Your task to perform on an android device: Open the map Image 0: 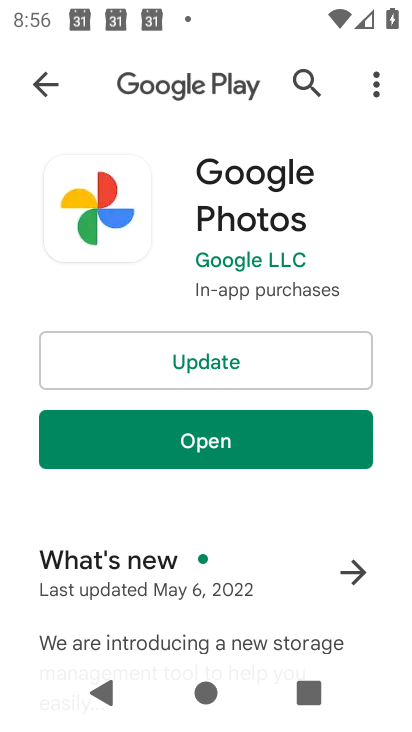
Step 0: press home button
Your task to perform on an android device: Open the map Image 1: 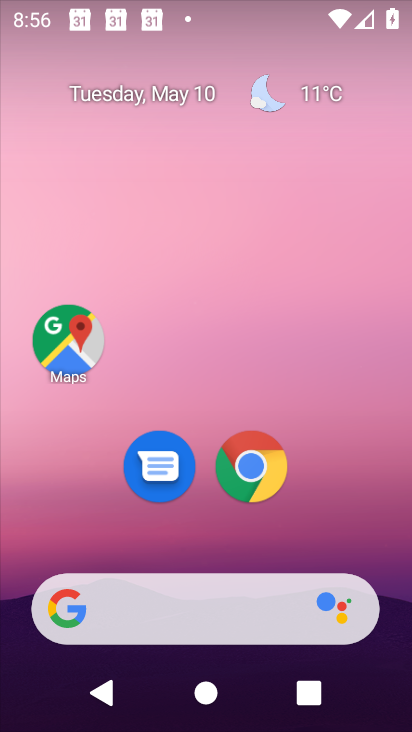
Step 1: click (70, 340)
Your task to perform on an android device: Open the map Image 2: 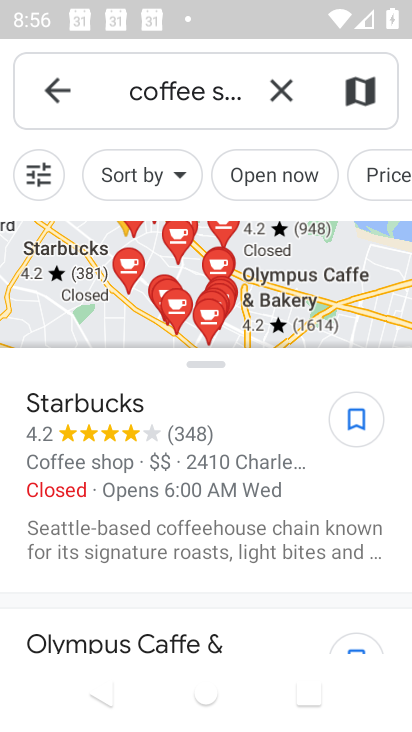
Step 2: click (44, 84)
Your task to perform on an android device: Open the map Image 3: 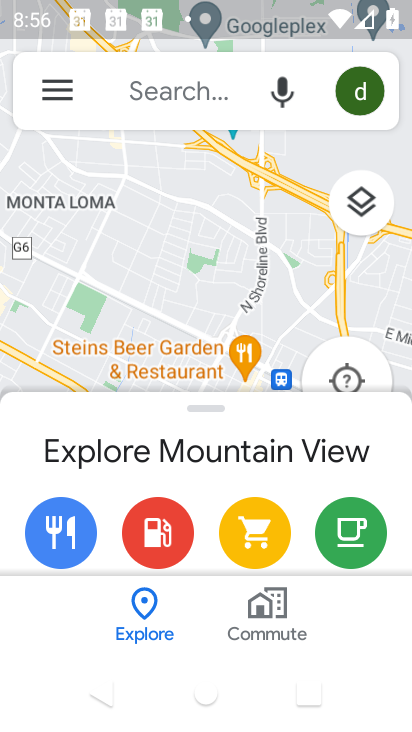
Step 3: task complete